Your task to perform on an android device: When is my next meeting? Image 0: 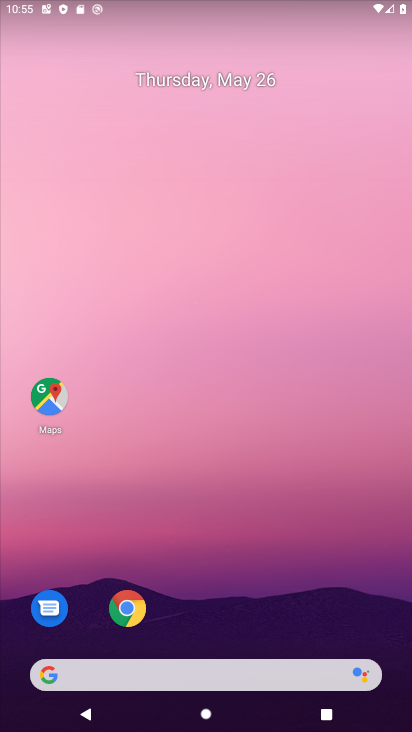
Step 0: drag from (220, 621) to (244, 131)
Your task to perform on an android device: When is my next meeting? Image 1: 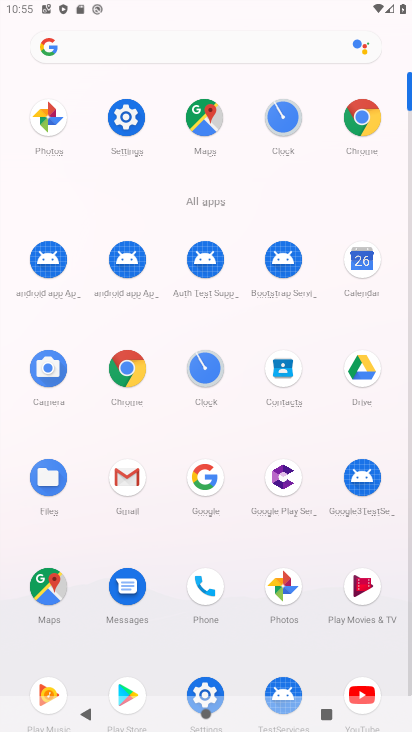
Step 1: click (367, 259)
Your task to perform on an android device: When is my next meeting? Image 2: 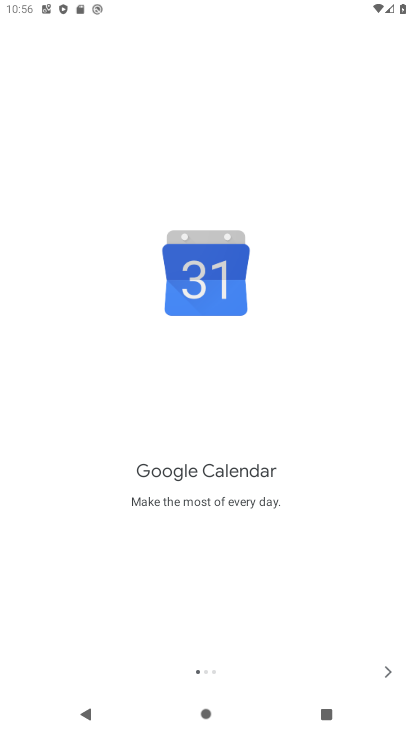
Step 2: click (386, 675)
Your task to perform on an android device: When is my next meeting? Image 3: 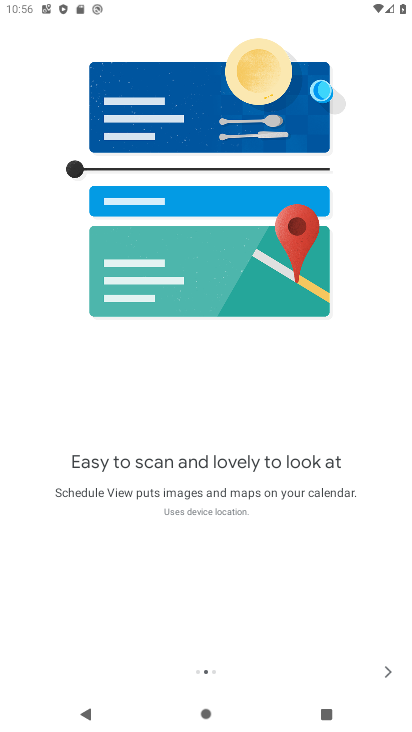
Step 3: click (386, 675)
Your task to perform on an android device: When is my next meeting? Image 4: 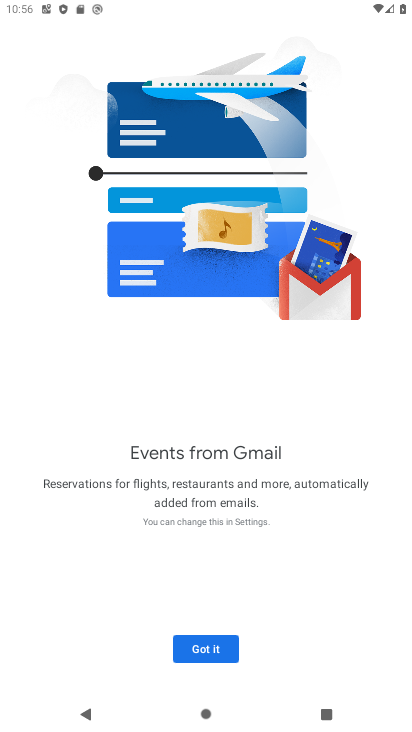
Step 4: click (213, 643)
Your task to perform on an android device: When is my next meeting? Image 5: 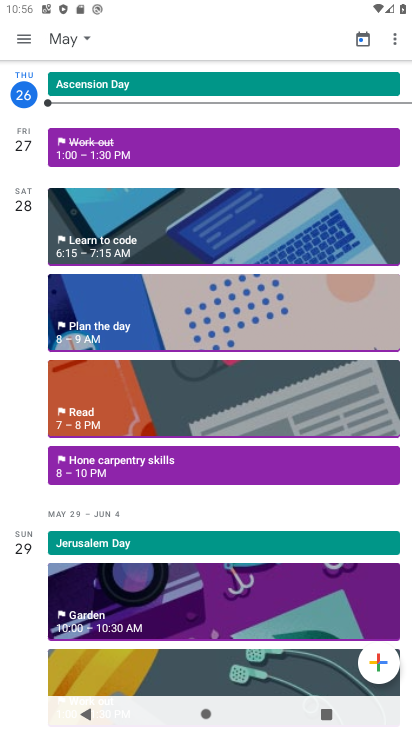
Step 5: task complete